Your task to perform on an android device: Open Google Chrome and click the shortcut for Amazon.com Image 0: 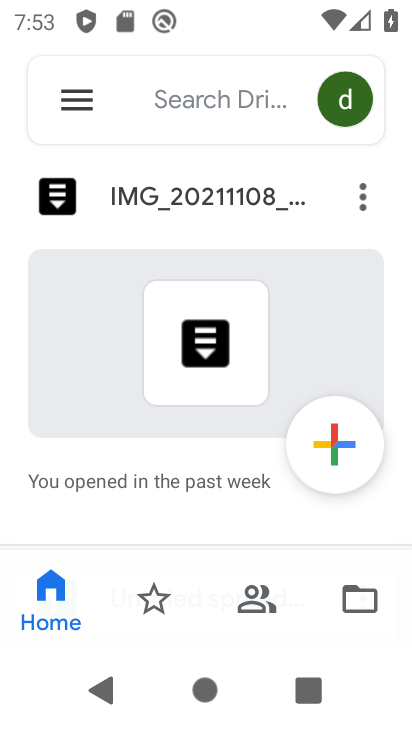
Step 0: press back button
Your task to perform on an android device: Open Google Chrome and click the shortcut for Amazon.com Image 1: 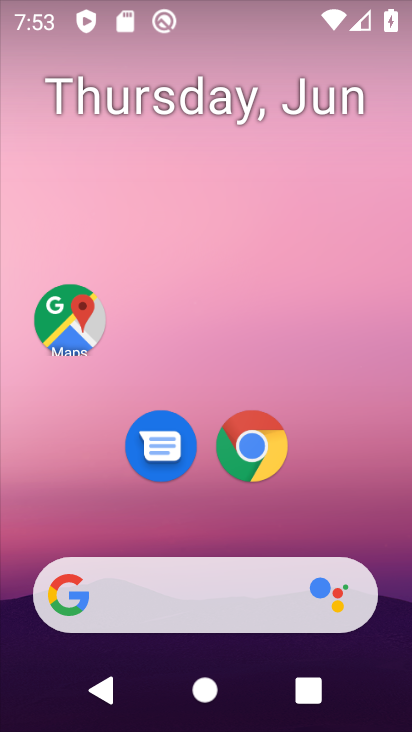
Step 1: click (278, 437)
Your task to perform on an android device: Open Google Chrome and click the shortcut for Amazon.com Image 2: 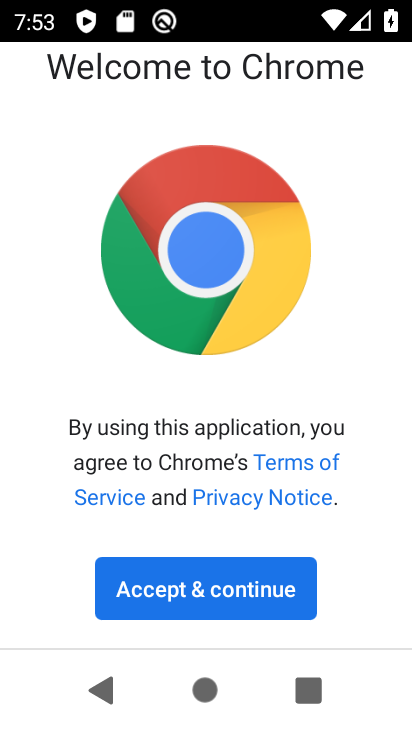
Step 2: click (204, 597)
Your task to perform on an android device: Open Google Chrome and click the shortcut for Amazon.com Image 3: 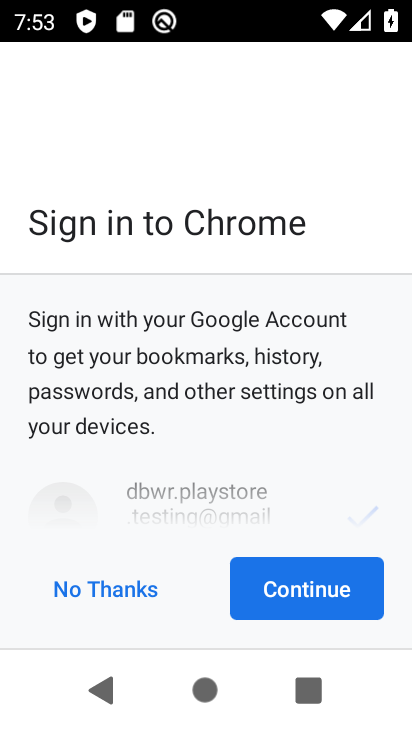
Step 3: click (301, 572)
Your task to perform on an android device: Open Google Chrome and click the shortcut for Amazon.com Image 4: 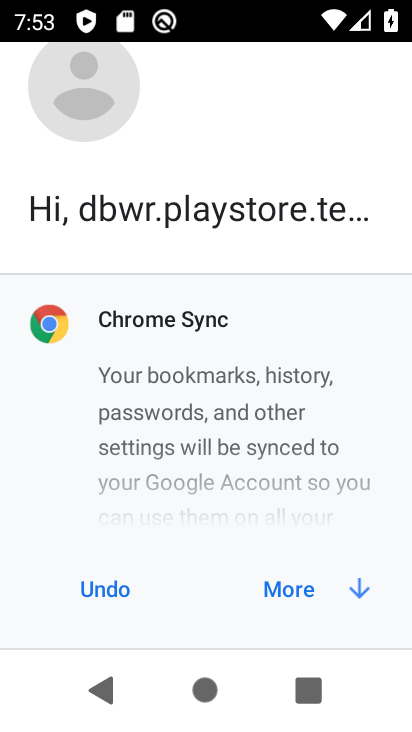
Step 4: click (298, 583)
Your task to perform on an android device: Open Google Chrome and click the shortcut for Amazon.com Image 5: 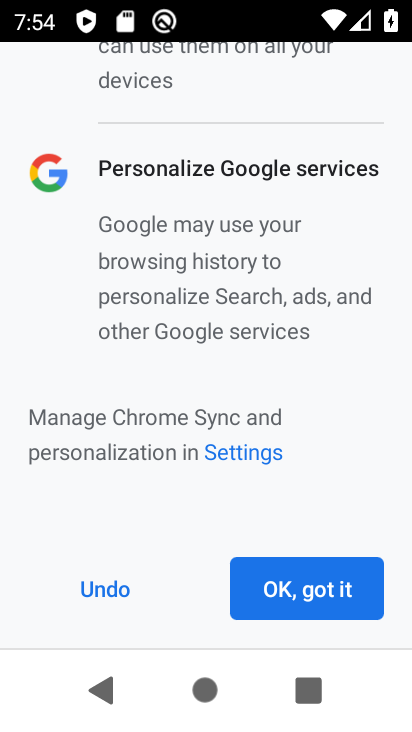
Step 5: click (339, 610)
Your task to perform on an android device: Open Google Chrome and click the shortcut for Amazon.com Image 6: 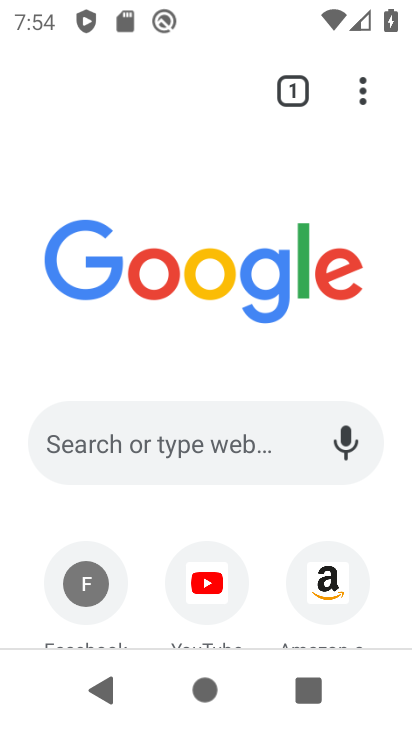
Step 6: click (343, 569)
Your task to perform on an android device: Open Google Chrome and click the shortcut for Amazon.com Image 7: 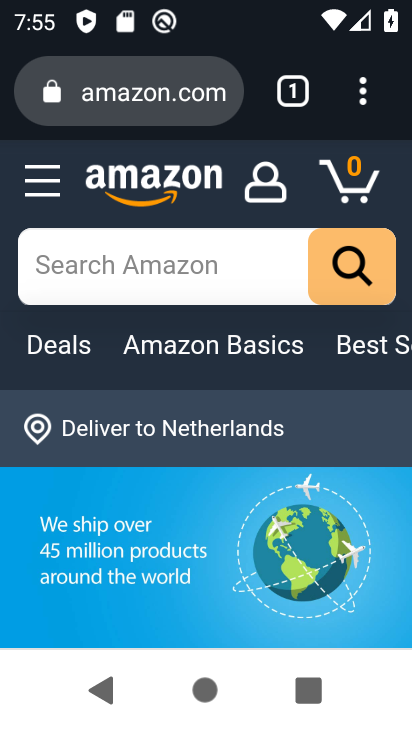
Step 7: task complete